Your task to perform on an android device: Open network settings Image 0: 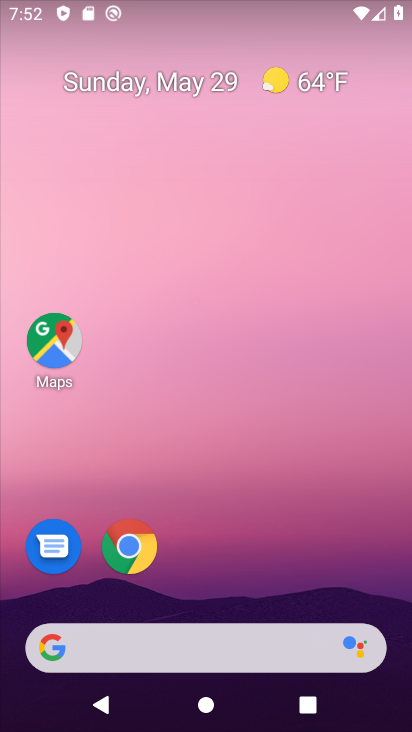
Step 0: drag from (239, 572) to (263, 136)
Your task to perform on an android device: Open network settings Image 1: 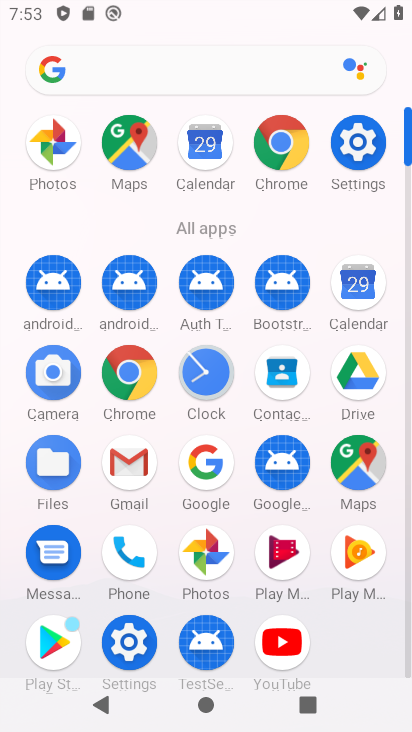
Step 1: click (367, 144)
Your task to perform on an android device: Open network settings Image 2: 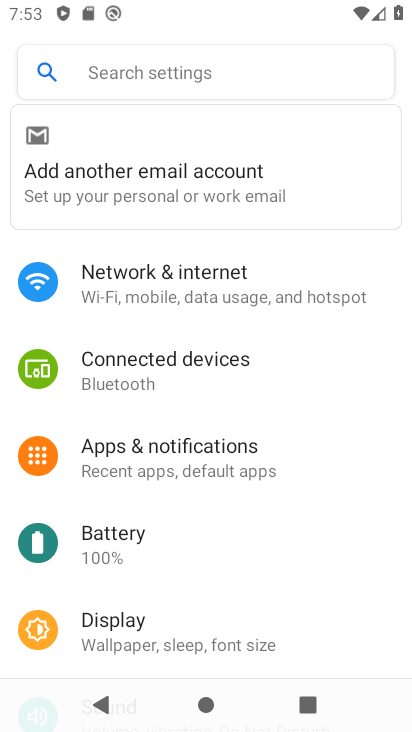
Step 2: click (283, 259)
Your task to perform on an android device: Open network settings Image 3: 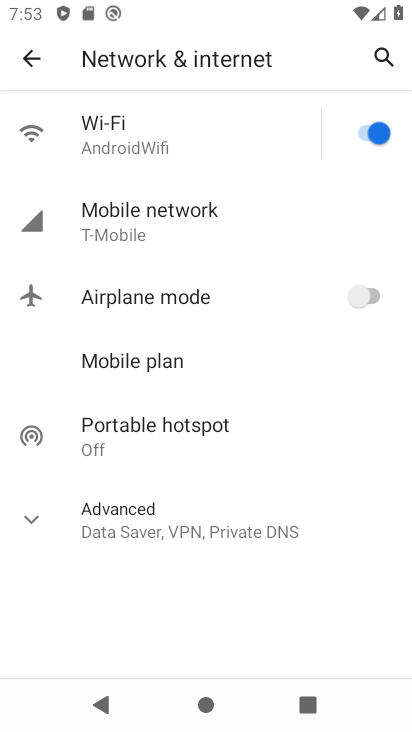
Step 3: task complete